Your task to perform on an android device: turn off wifi Image 0: 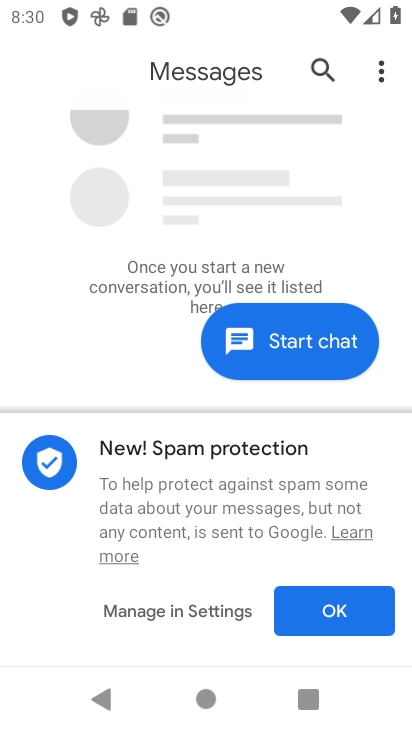
Step 0: press home button
Your task to perform on an android device: turn off wifi Image 1: 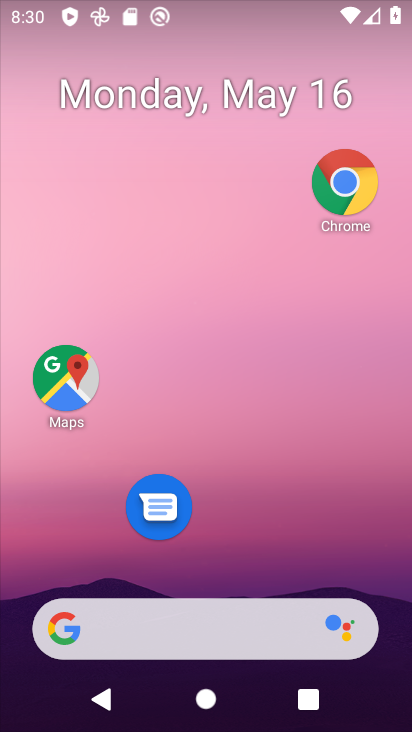
Step 1: drag from (237, 0) to (183, 368)
Your task to perform on an android device: turn off wifi Image 2: 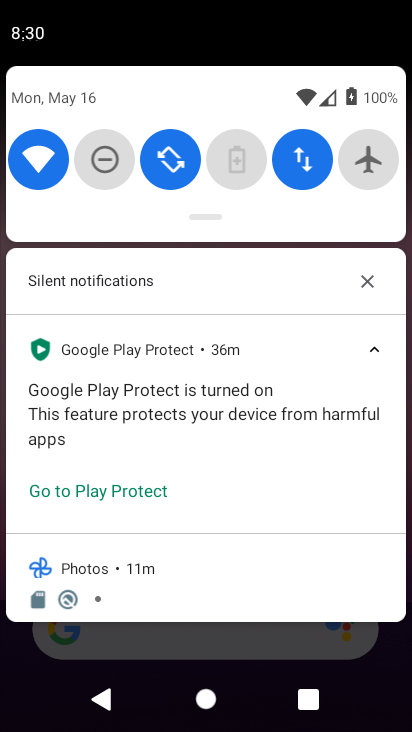
Step 2: click (43, 152)
Your task to perform on an android device: turn off wifi Image 3: 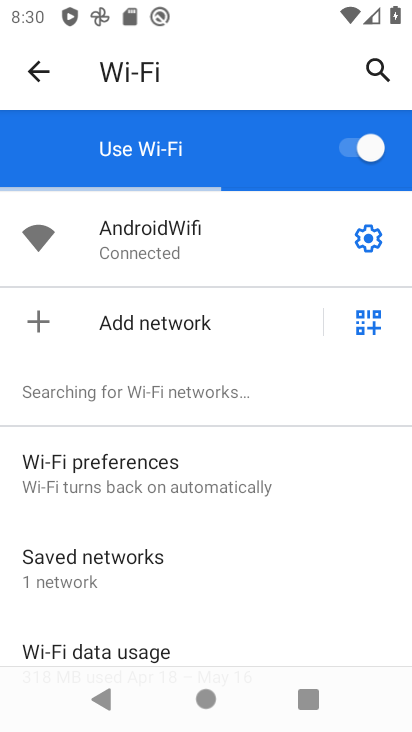
Step 3: click (358, 139)
Your task to perform on an android device: turn off wifi Image 4: 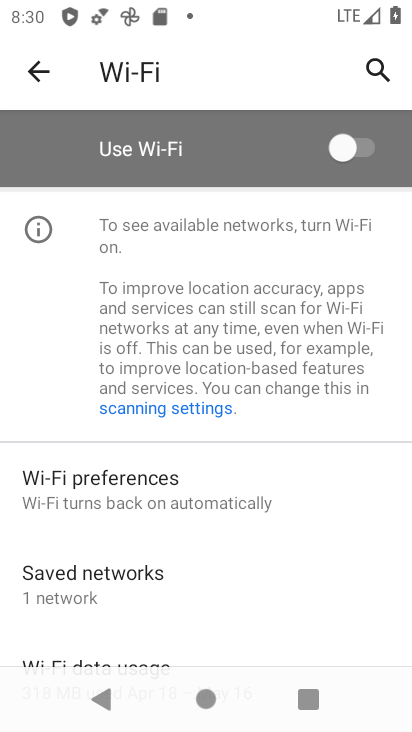
Step 4: task complete